Your task to perform on an android device: What's the weather today? Image 0: 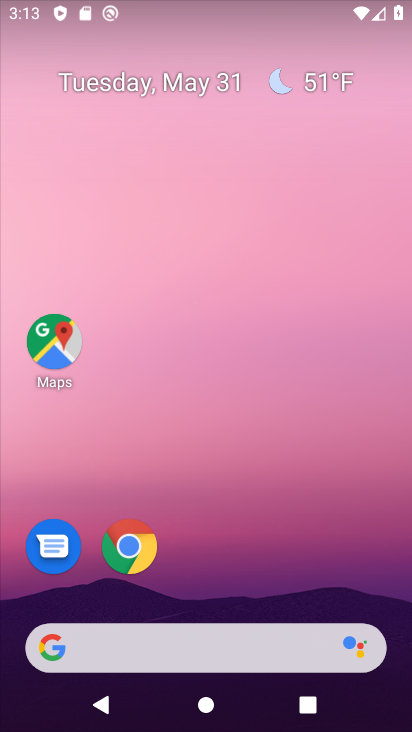
Step 0: drag from (229, 584) to (190, 39)
Your task to perform on an android device: What's the weather today? Image 1: 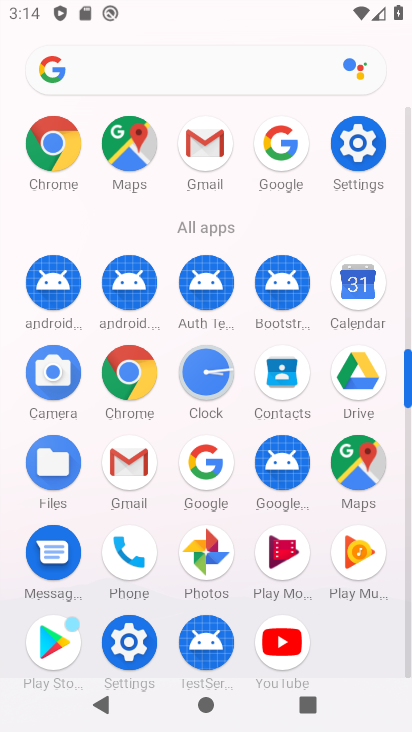
Step 1: click (200, 497)
Your task to perform on an android device: What's the weather today? Image 2: 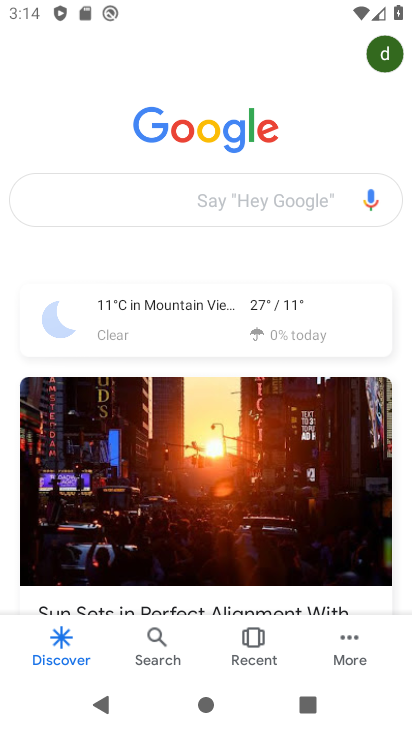
Step 2: click (164, 210)
Your task to perform on an android device: What's the weather today? Image 3: 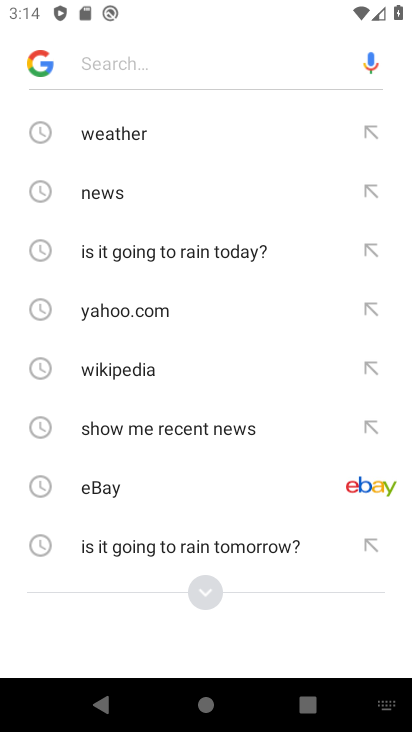
Step 3: click (110, 146)
Your task to perform on an android device: What's the weather today? Image 4: 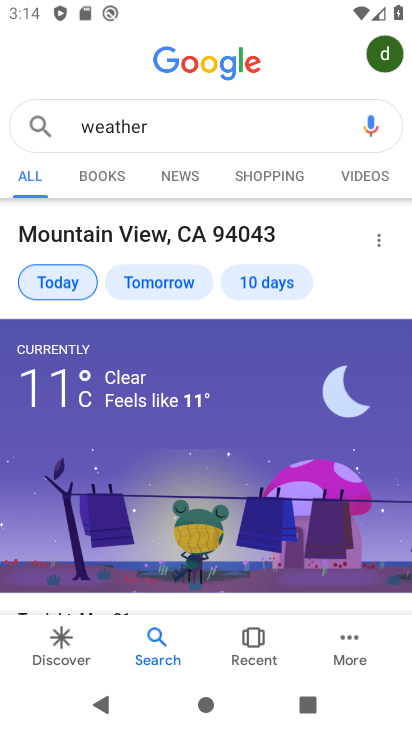
Step 4: task complete